Your task to perform on an android device: add a contact in the contacts app Image 0: 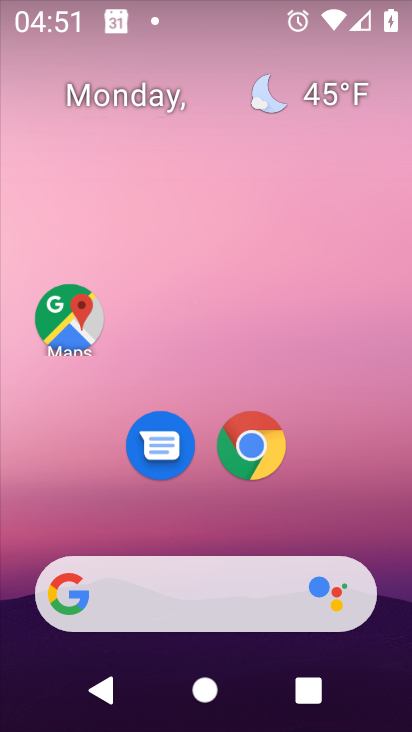
Step 0: drag from (256, 436) to (258, 61)
Your task to perform on an android device: add a contact in the contacts app Image 1: 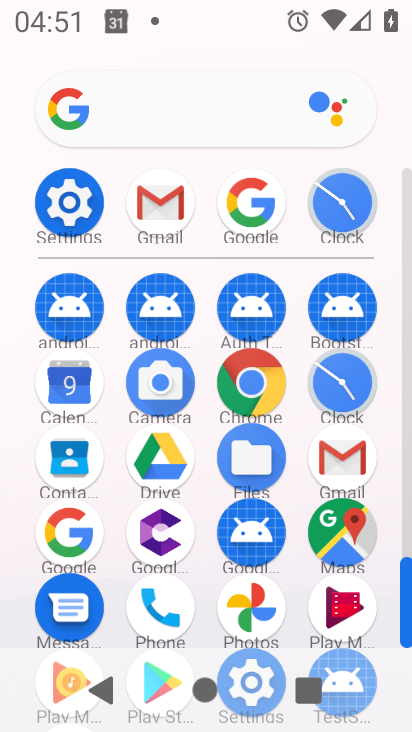
Step 1: click (42, 444)
Your task to perform on an android device: add a contact in the contacts app Image 2: 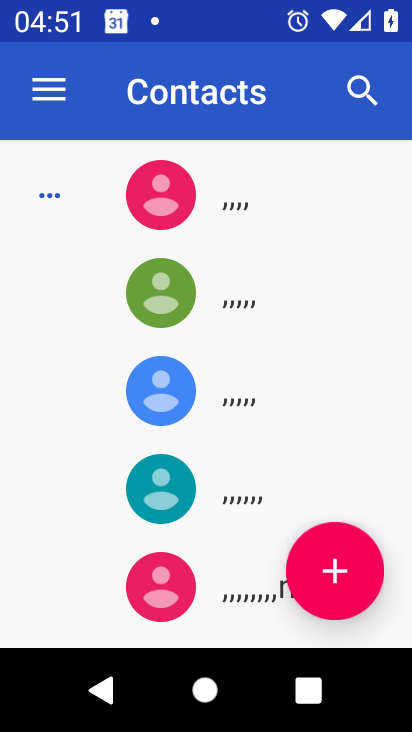
Step 2: click (331, 577)
Your task to perform on an android device: add a contact in the contacts app Image 3: 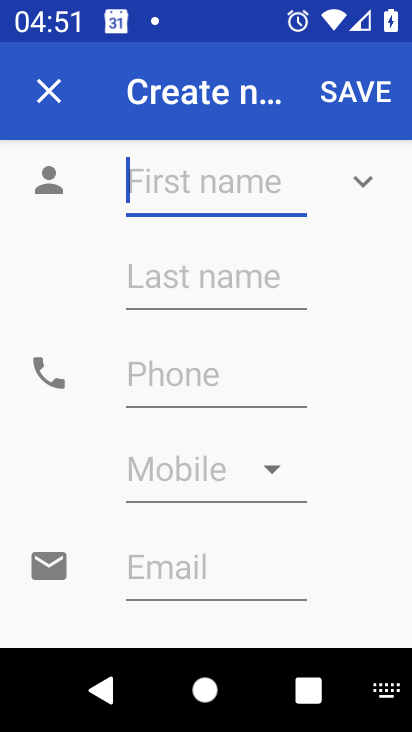
Step 3: type "sr"
Your task to perform on an android device: add a contact in the contacts app Image 4: 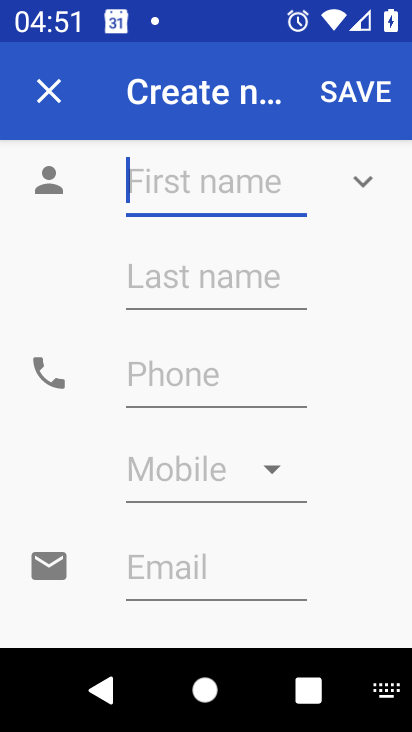
Step 4: click (165, 365)
Your task to perform on an android device: add a contact in the contacts app Image 5: 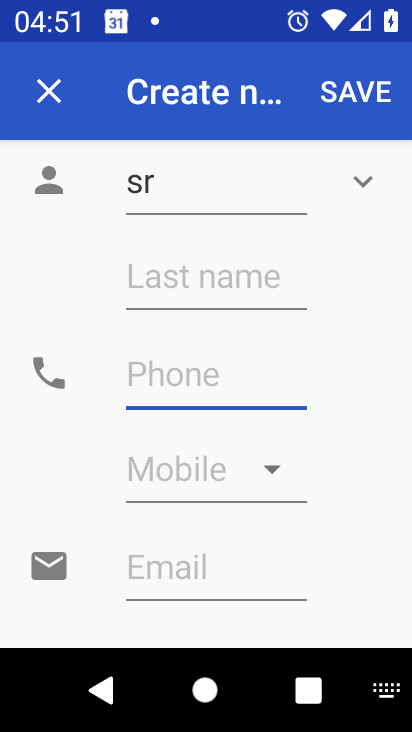
Step 5: type "123"
Your task to perform on an android device: add a contact in the contacts app Image 6: 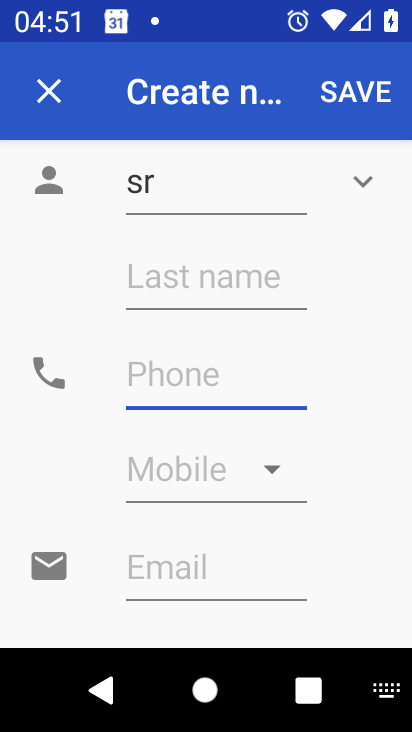
Step 6: click (355, 106)
Your task to perform on an android device: add a contact in the contacts app Image 7: 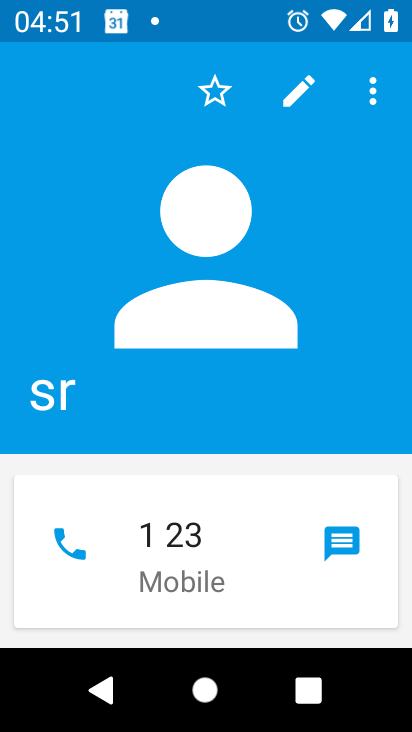
Step 7: task complete